Your task to perform on an android device: Open Google Chrome Image 0: 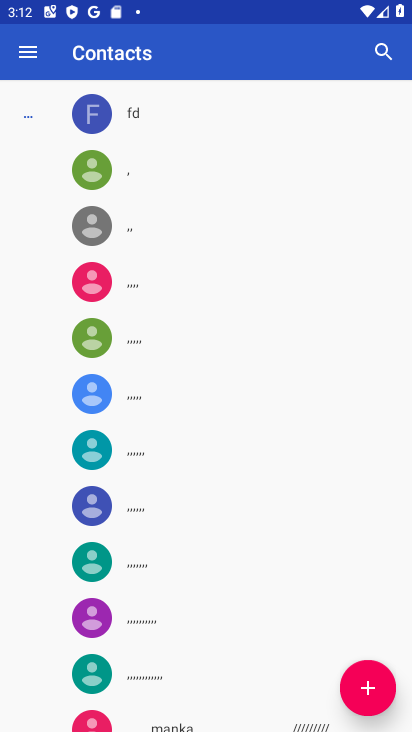
Step 0: press home button
Your task to perform on an android device: Open Google Chrome Image 1: 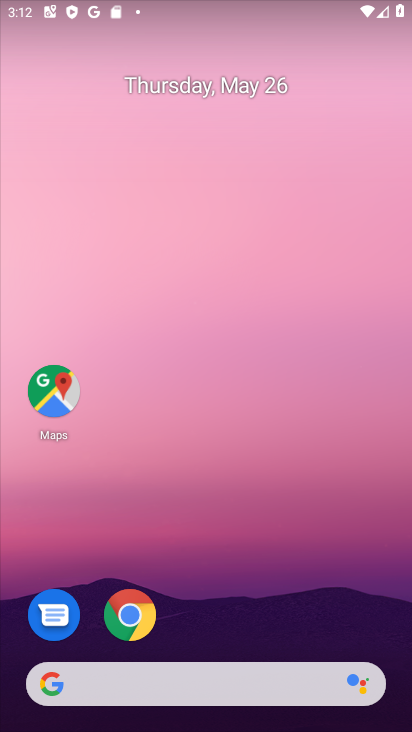
Step 1: drag from (193, 646) to (256, 321)
Your task to perform on an android device: Open Google Chrome Image 2: 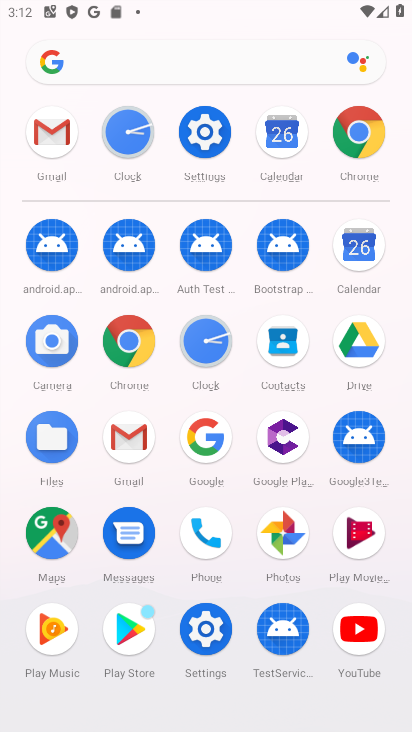
Step 2: press home button
Your task to perform on an android device: Open Google Chrome Image 3: 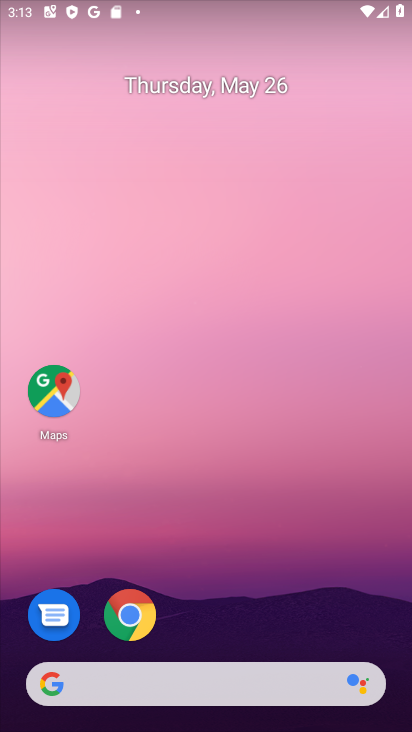
Step 3: click (124, 617)
Your task to perform on an android device: Open Google Chrome Image 4: 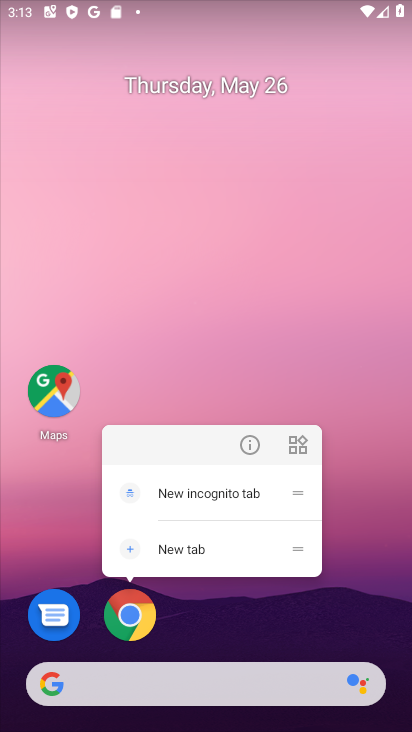
Step 4: click (134, 622)
Your task to perform on an android device: Open Google Chrome Image 5: 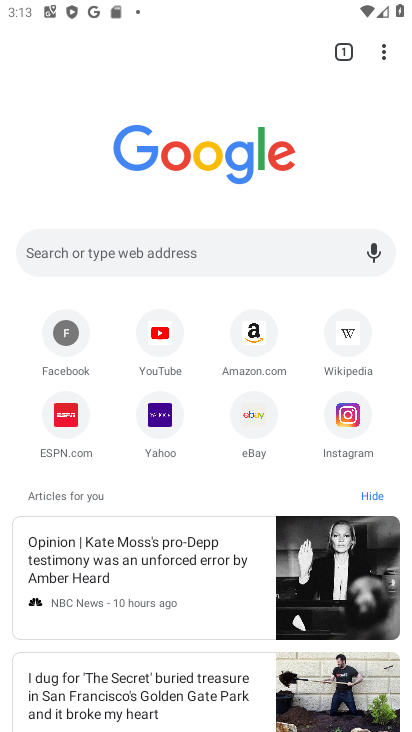
Step 5: task complete